Your task to perform on an android device: open device folders in google photos Image 0: 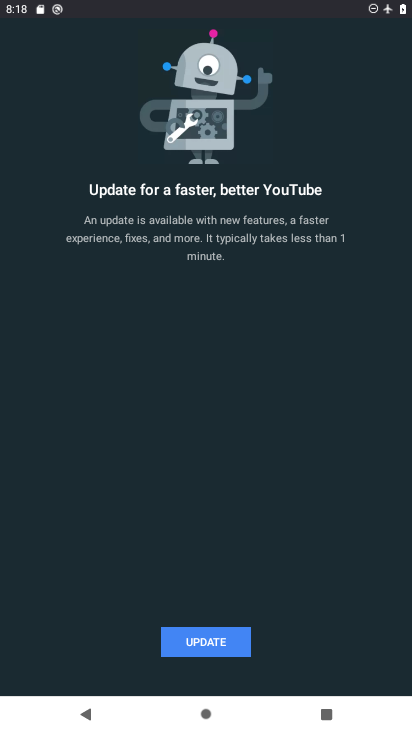
Step 0: press home button
Your task to perform on an android device: open device folders in google photos Image 1: 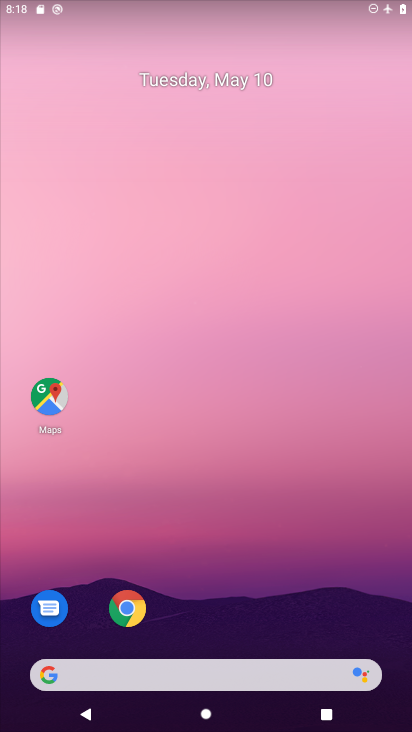
Step 1: drag from (253, 533) to (271, 286)
Your task to perform on an android device: open device folders in google photos Image 2: 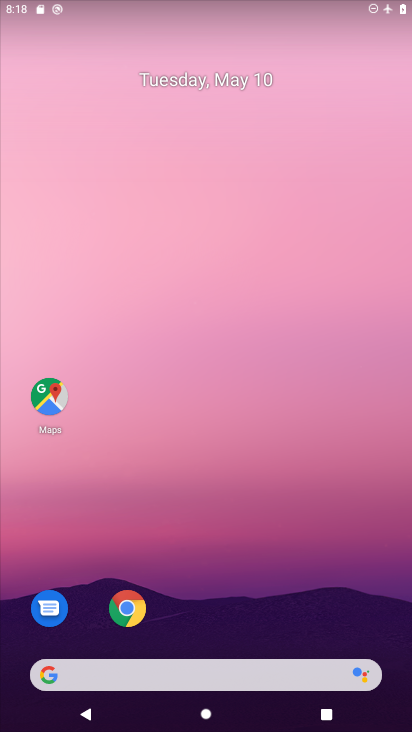
Step 2: drag from (278, 515) to (272, 256)
Your task to perform on an android device: open device folders in google photos Image 3: 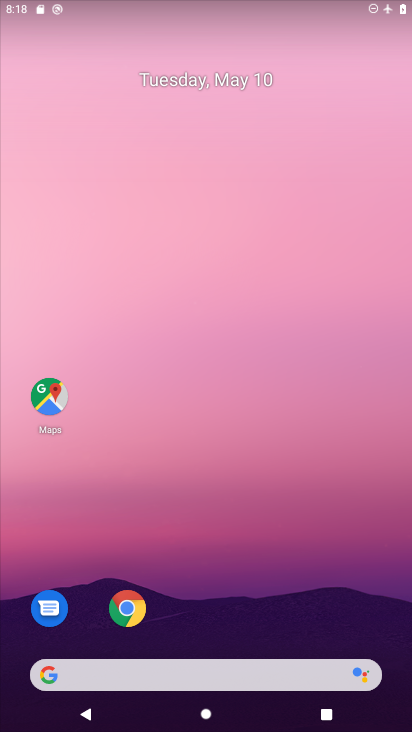
Step 3: drag from (226, 671) to (252, 242)
Your task to perform on an android device: open device folders in google photos Image 4: 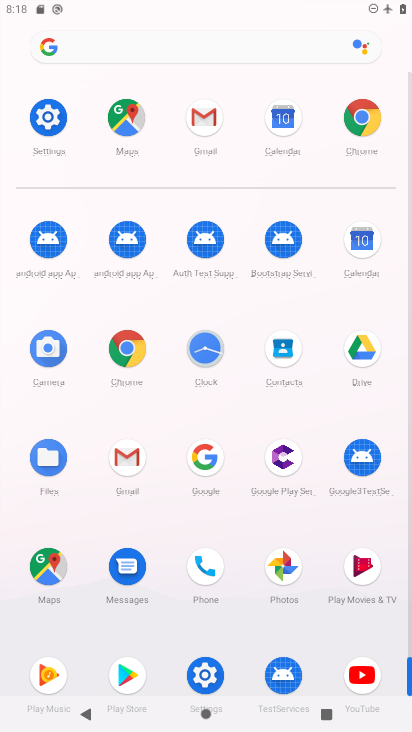
Step 4: click (275, 564)
Your task to perform on an android device: open device folders in google photos Image 5: 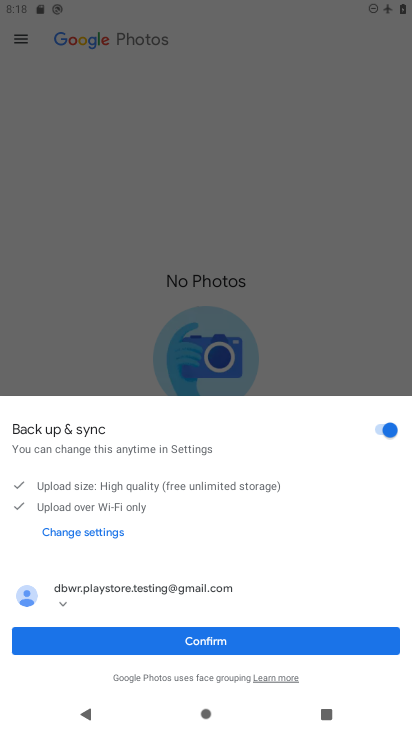
Step 5: click (226, 637)
Your task to perform on an android device: open device folders in google photos Image 6: 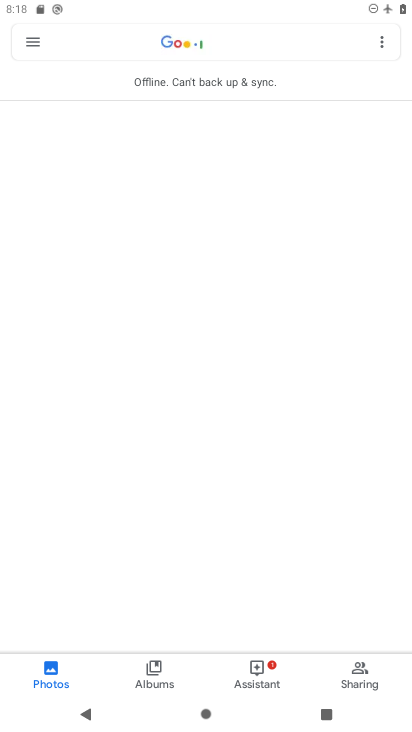
Step 6: click (154, 675)
Your task to perform on an android device: open device folders in google photos Image 7: 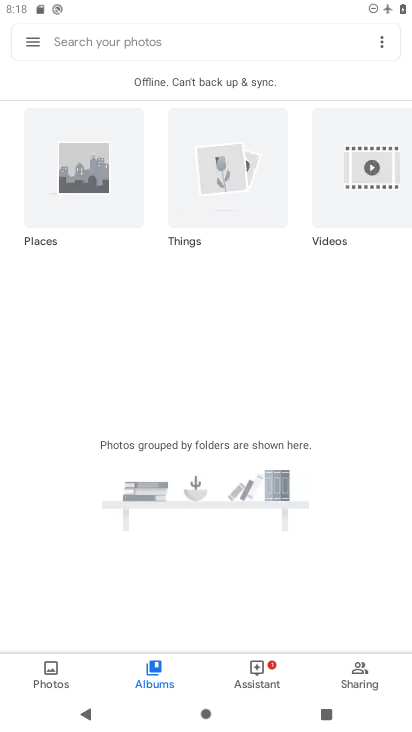
Step 7: task complete